Your task to perform on an android device: Search for seafood restaurants on Google Maps Image 0: 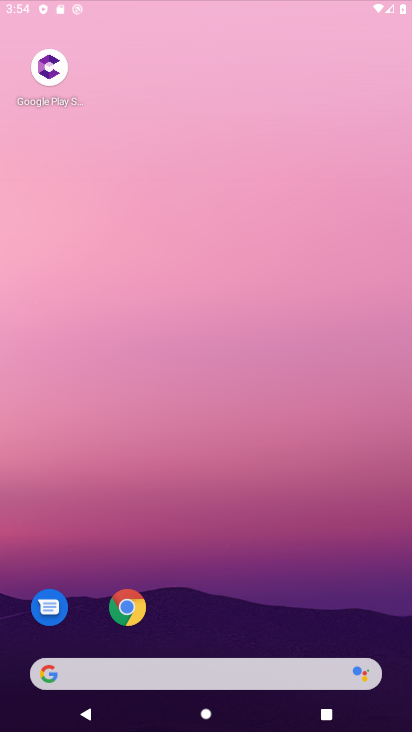
Step 0: drag from (293, 521) to (386, 20)
Your task to perform on an android device: Search for seafood restaurants on Google Maps Image 1: 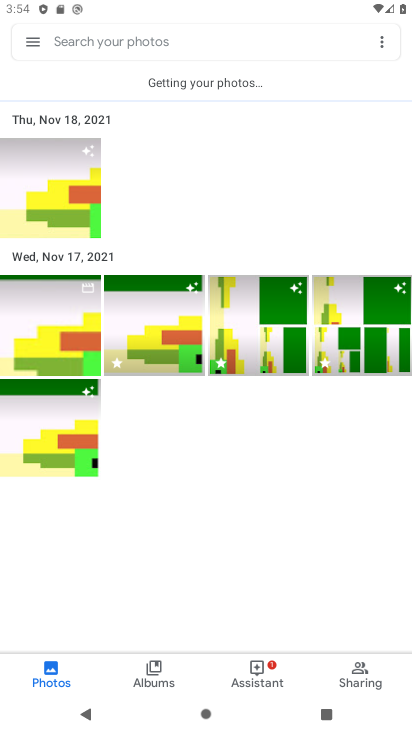
Step 1: press home button
Your task to perform on an android device: Search for seafood restaurants on Google Maps Image 2: 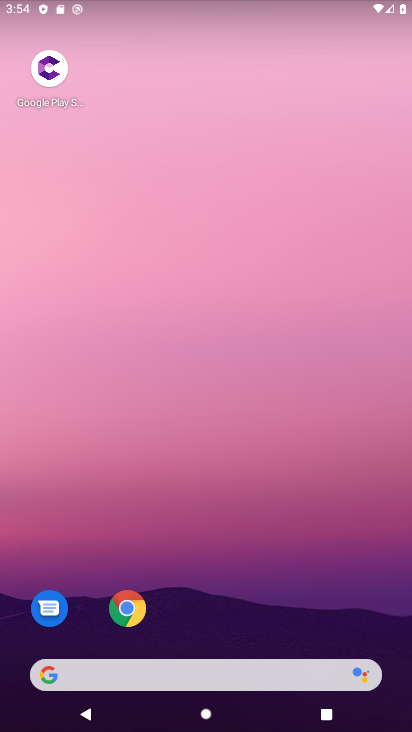
Step 2: drag from (293, 598) to (336, 80)
Your task to perform on an android device: Search for seafood restaurants on Google Maps Image 3: 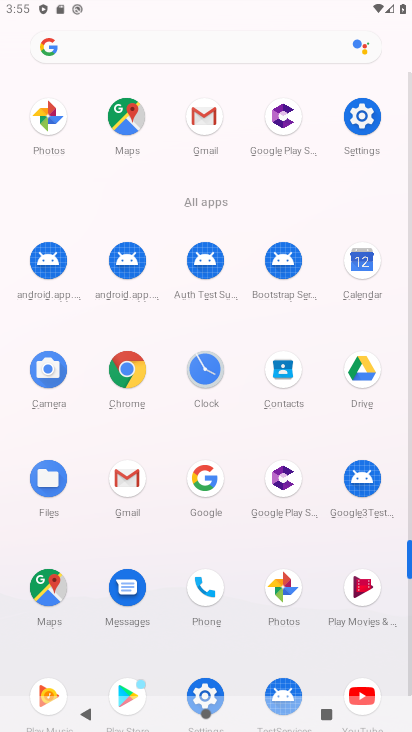
Step 3: click (42, 593)
Your task to perform on an android device: Search for seafood restaurants on Google Maps Image 4: 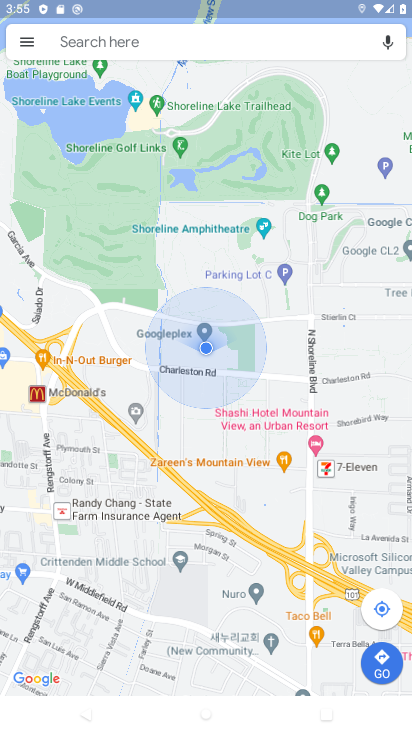
Step 4: click (211, 39)
Your task to perform on an android device: Search for seafood restaurants on Google Maps Image 5: 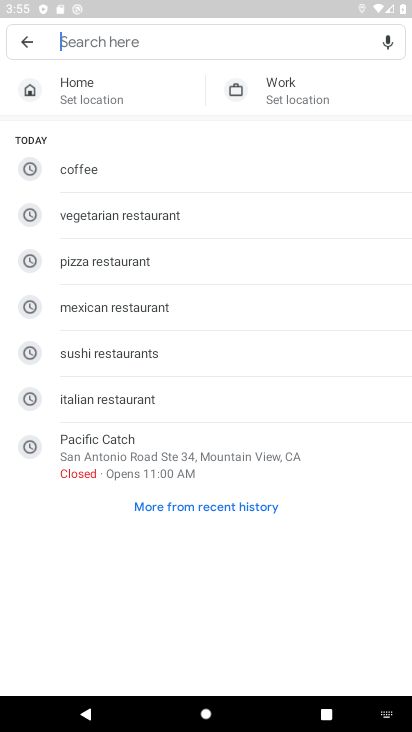
Step 5: type "seafood resturents"
Your task to perform on an android device: Search for seafood restaurants on Google Maps Image 6: 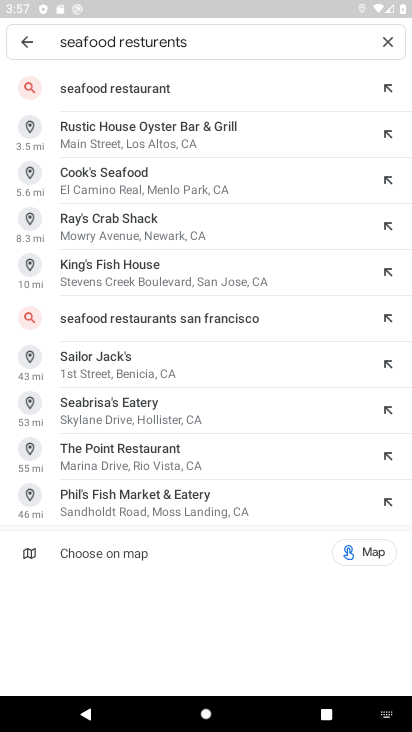
Step 6: click (144, 92)
Your task to perform on an android device: Search for seafood restaurants on Google Maps Image 7: 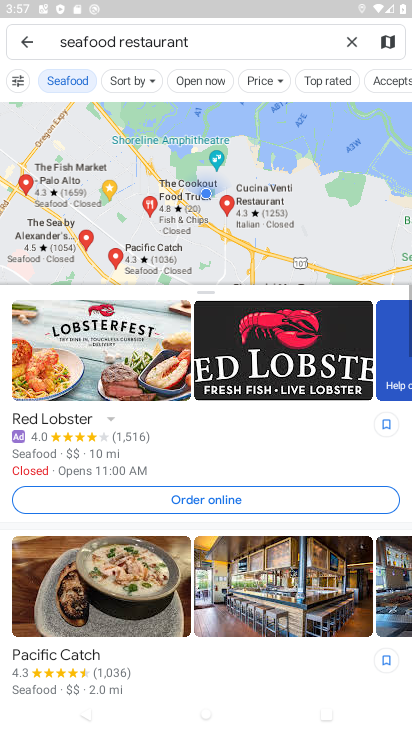
Step 7: task complete